Your task to perform on an android device: open app "Firefox Browser" (install if not already installed) Image 0: 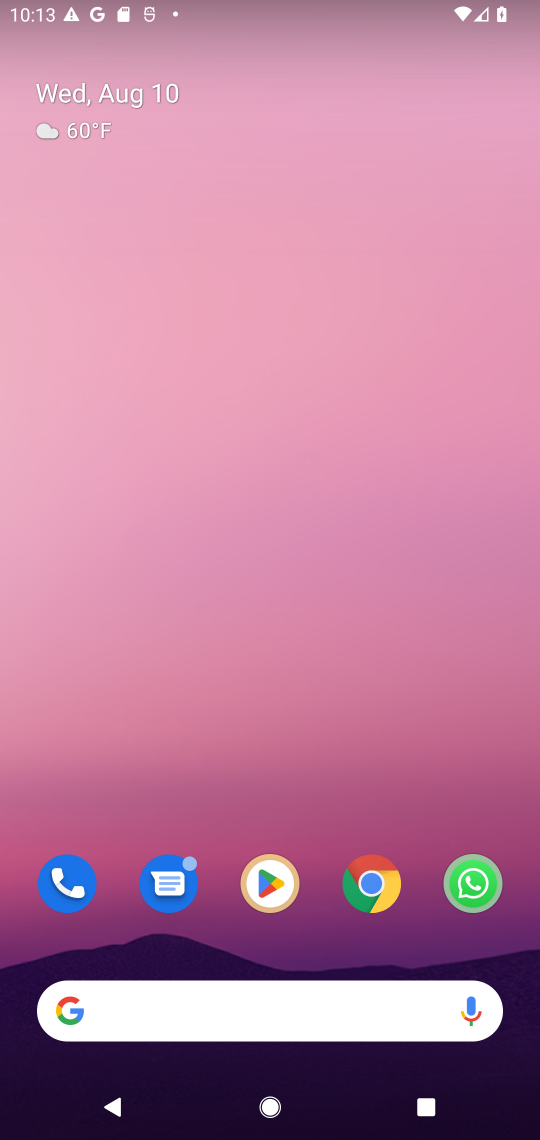
Step 0: press home button
Your task to perform on an android device: open app "Firefox Browser" (install if not already installed) Image 1: 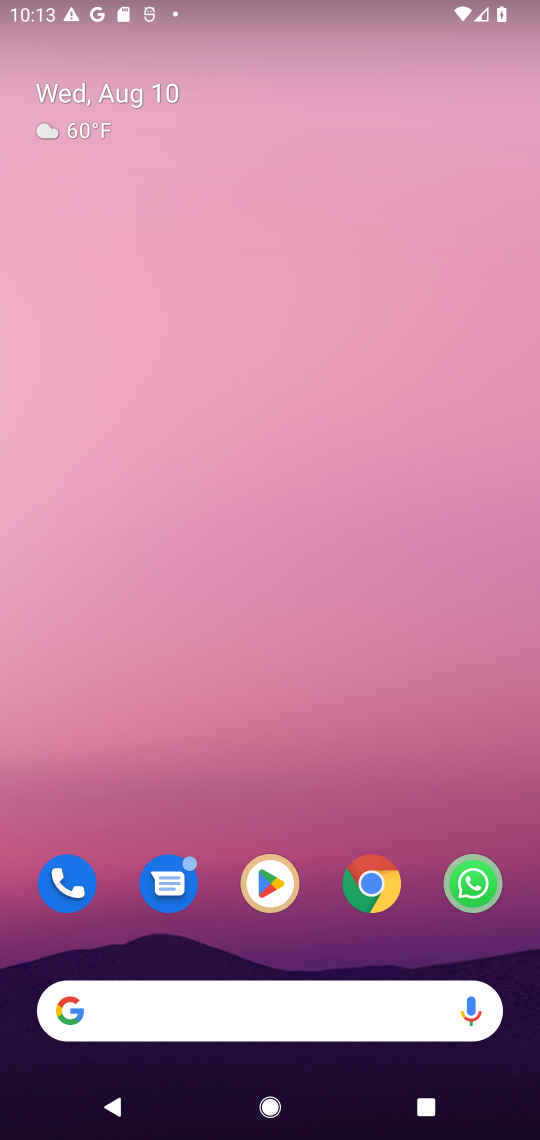
Step 1: drag from (418, 837) to (406, 16)
Your task to perform on an android device: open app "Firefox Browser" (install if not already installed) Image 2: 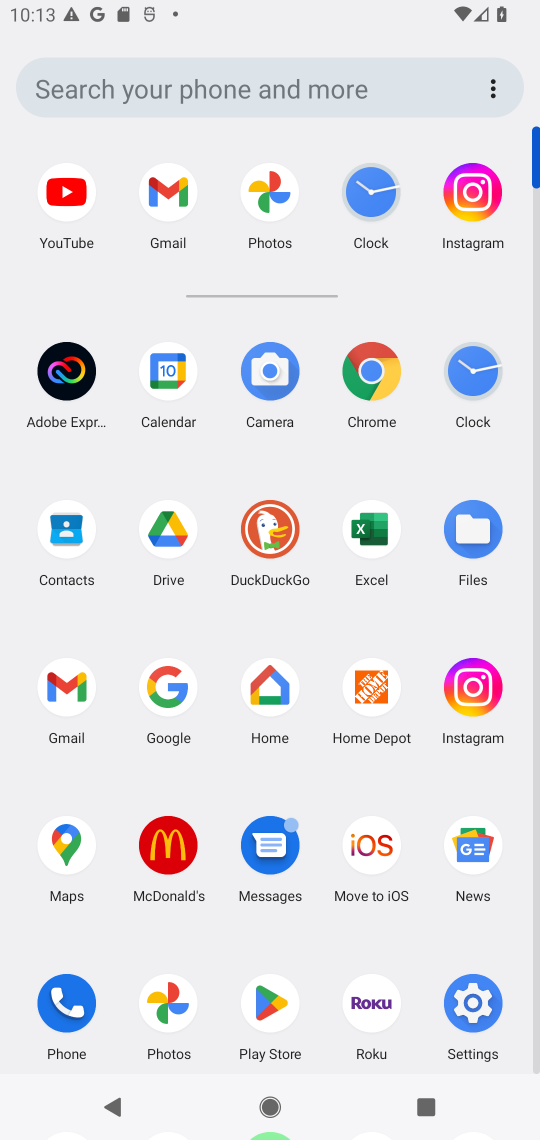
Step 2: click (263, 1012)
Your task to perform on an android device: open app "Firefox Browser" (install if not already installed) Image 3: 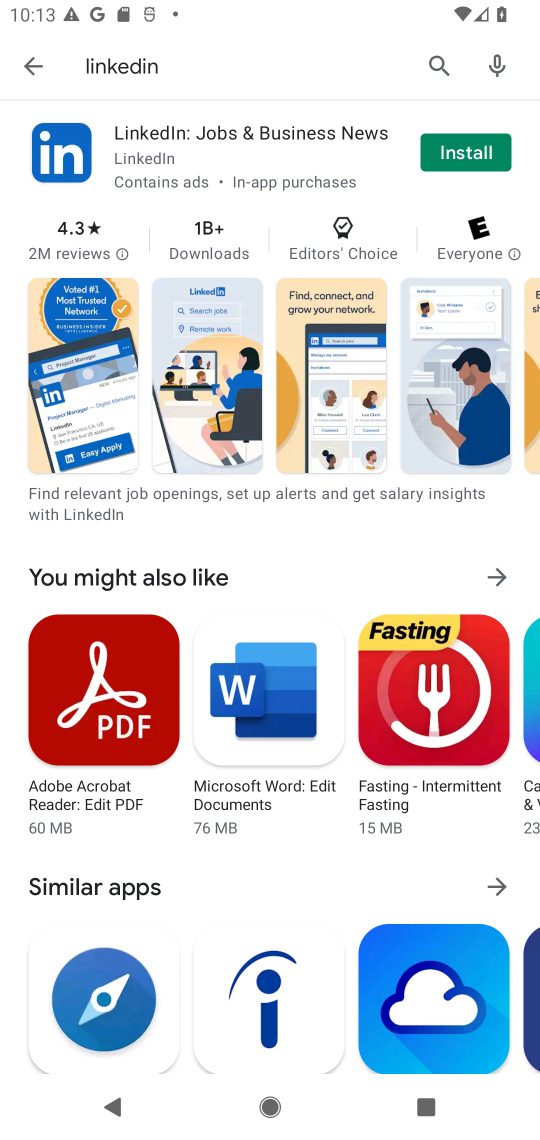
Step 3: click (439, 52)
Your task to perform on an android device: open app "Firefox Browser" (install if not already installed) Image 4: 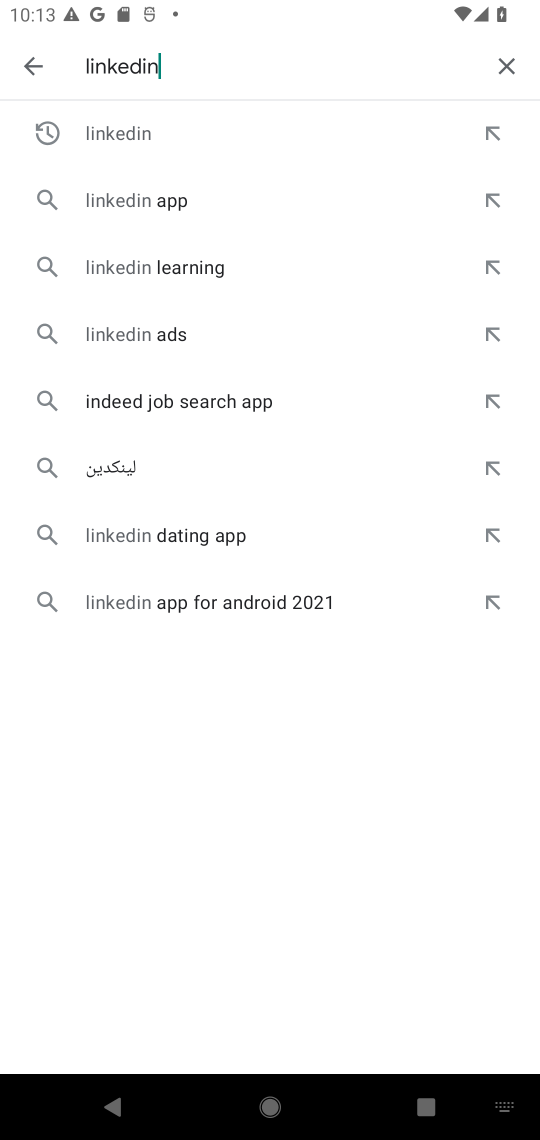
Step 4: click (503, 62)
Your task to perform on an android device: open app "Firefox Browser" (install if not already installed) Image 5: 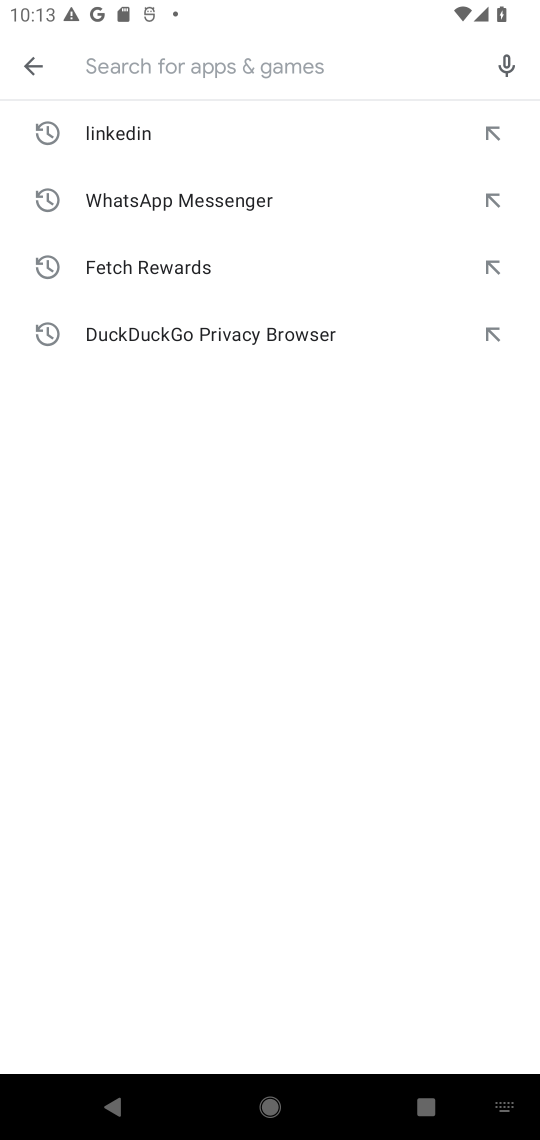
Step 5: type "Firefox Browser"
Your task to perform on an android device: open app "Firefox Browser" (install if not already installed) Image 6: 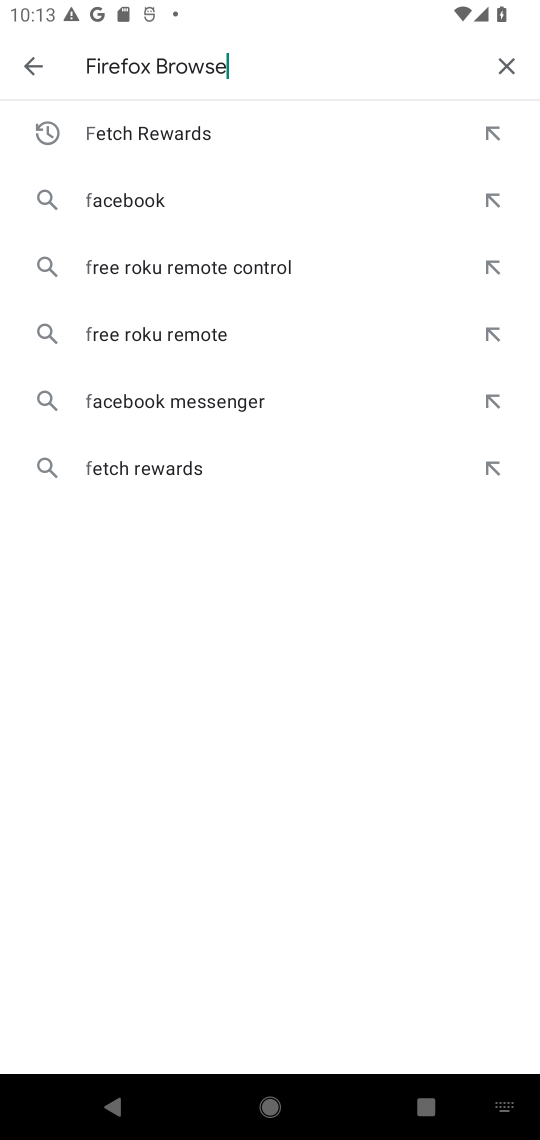
Step 6: press enter
Your task to perform on an android device: open app "Firefox Browser" (install if not already installed) Image 7: 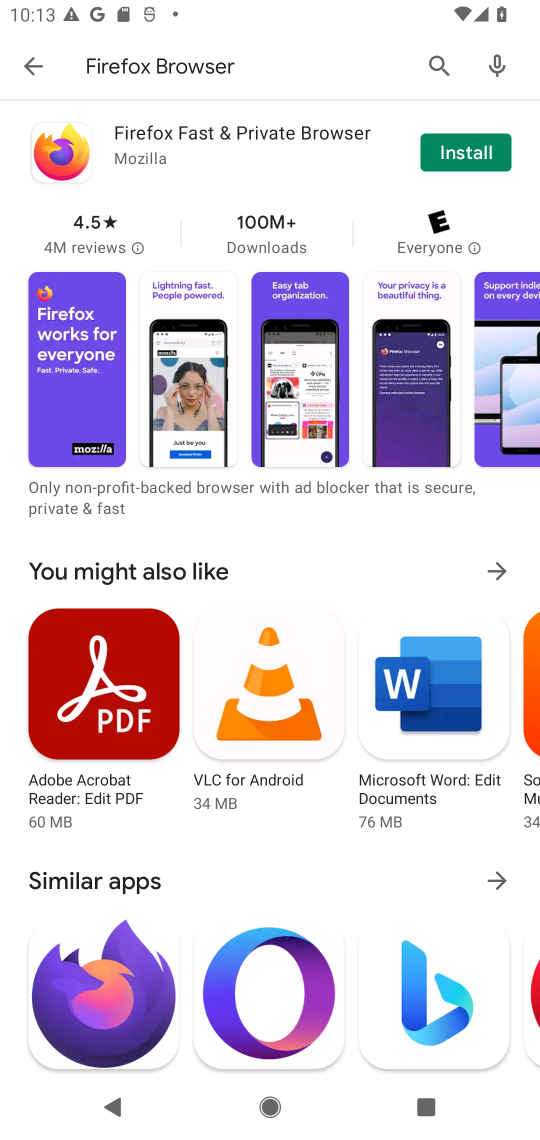
Step 7: click (469, 149)
Your task to perform on an android device: open app "Firefox Browser" (install if not already installed) Image 8: 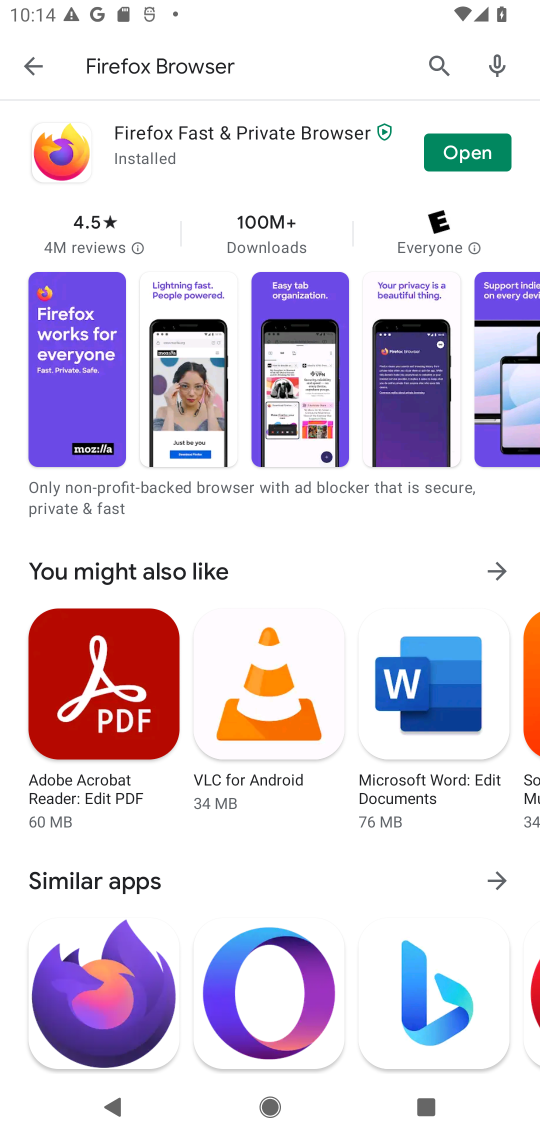
Step 8: click (503, 149)
Your task to perform on an android device: open app "Firefox Browser" (install if not already installed) Image 9: 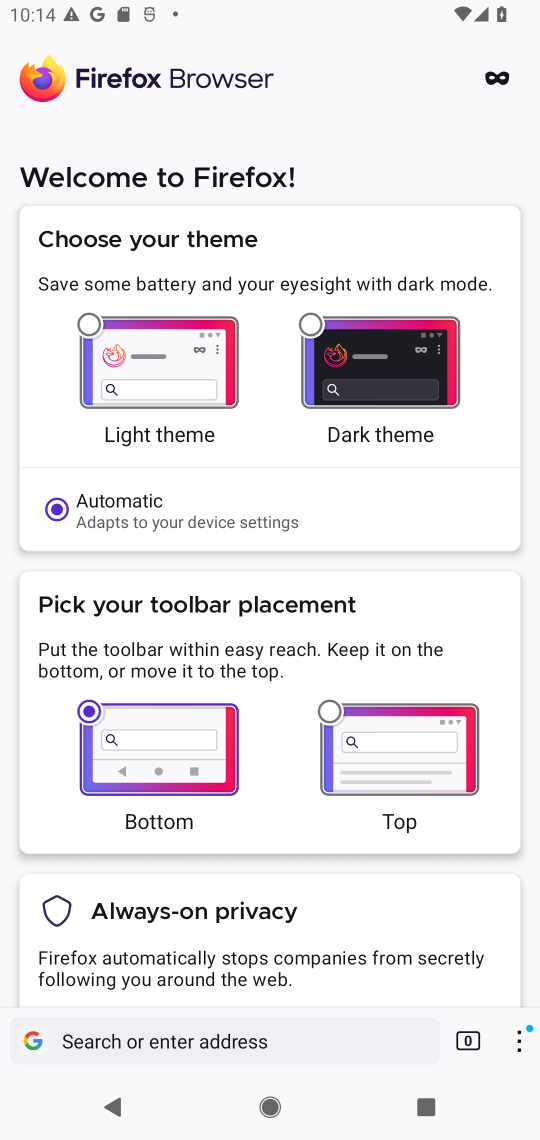
Step 9: task complete